Your task to perform on an android device: Open location settings Image 0: 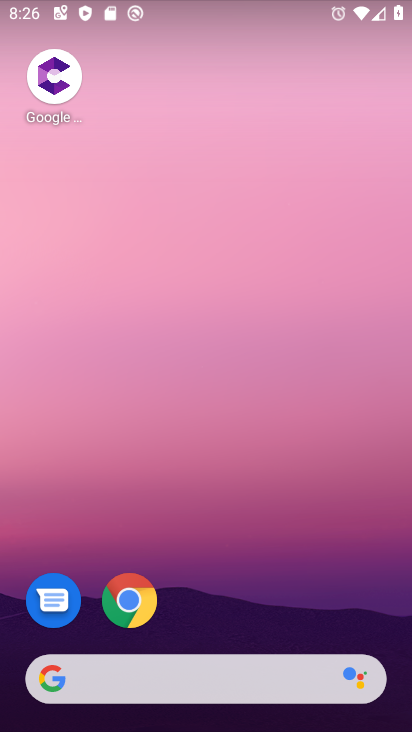
Step 0: drag from (204, 679) to (203, 190)
Your task to perform on an android device: Open location settings Image 1: 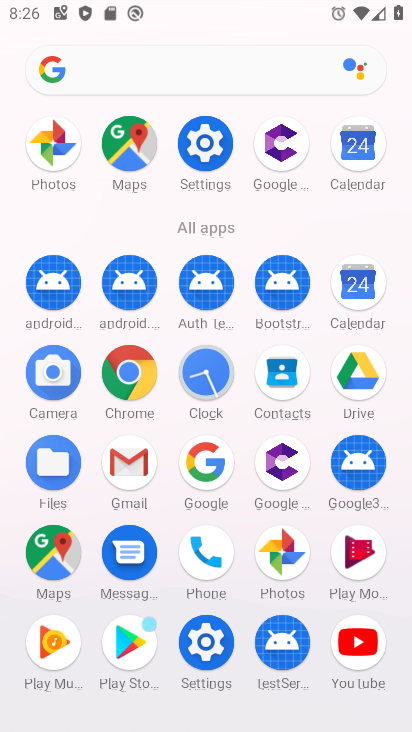
Step 1: click (208, 638)
Your task to perform on an android device: Open location settings Image 2: 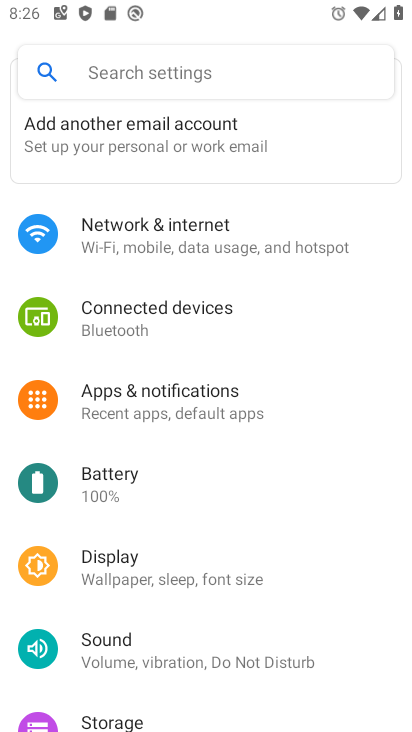
Step 2: drag from (189, 695) to (166, 303)
Your task to perform on an android device: Open location settings Image 3: 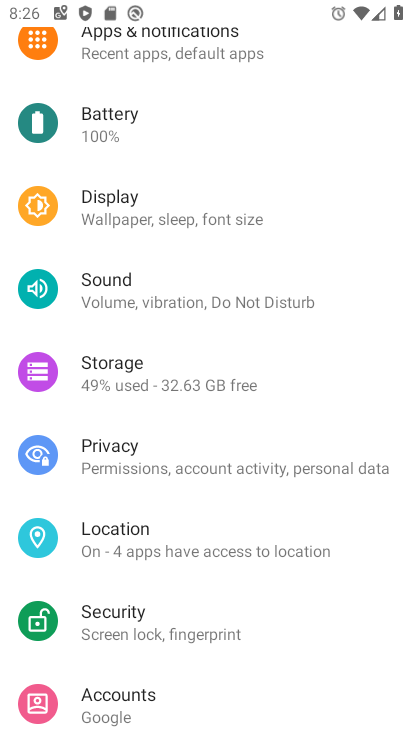
Step 3: click (122, 529)
Your task to perform on an android device: Open location settings Image 4: 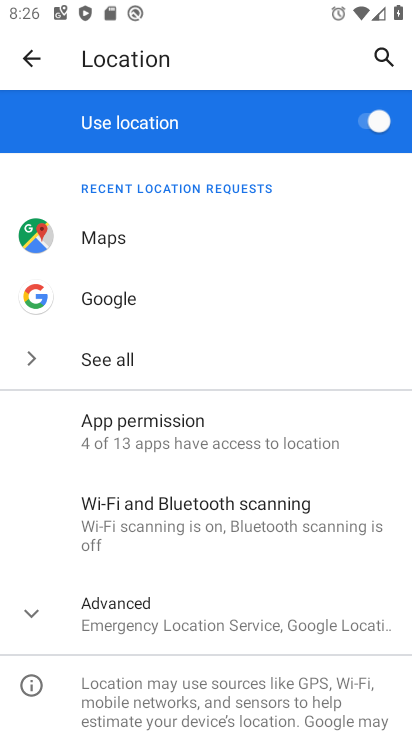
Step 4: task complete